Your task to perform on an android device: turn notification dots off Image 0: 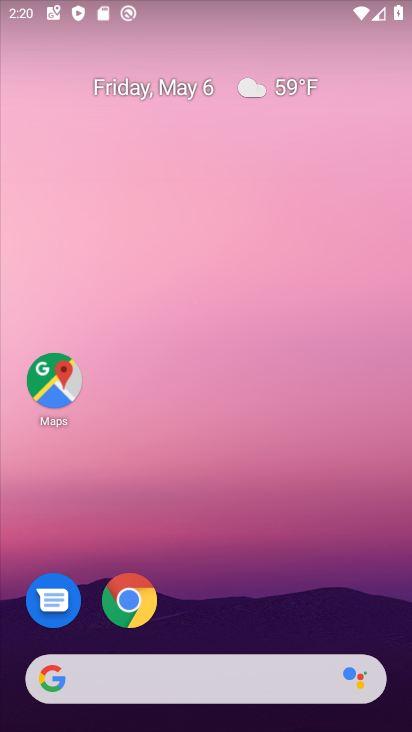
Step 0: drag from (239, 519) to (209, 28)
Your task to perform on an android device: turn notification dots off Image 1: 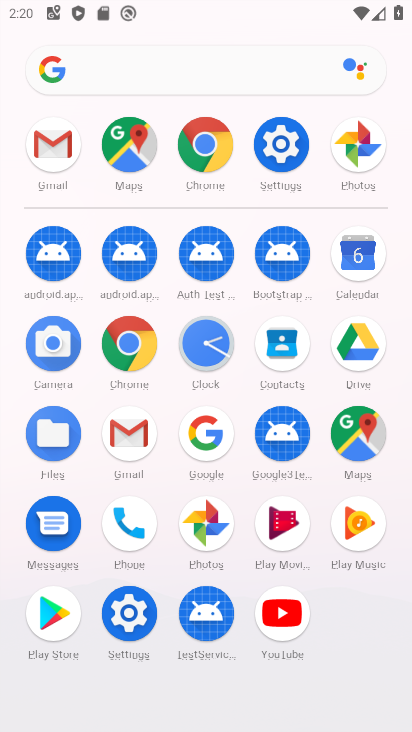
Step 1: click (282, 144)
Your task to perform on an android device: turn notification dots off Image 2: 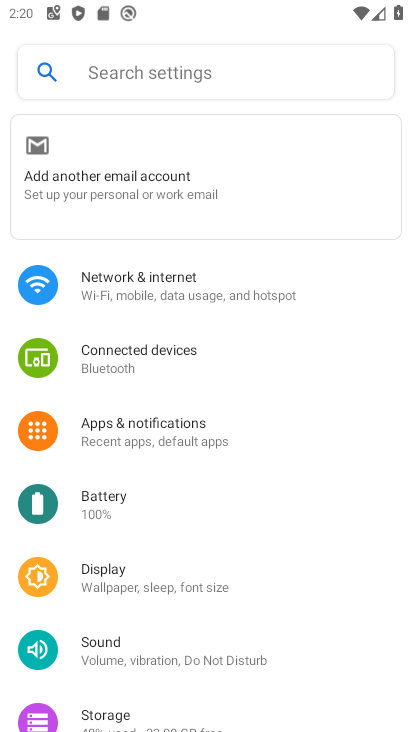
Step 2: click (158, 429)
Your task to perform on an android device: turn notification dots off Image 3: 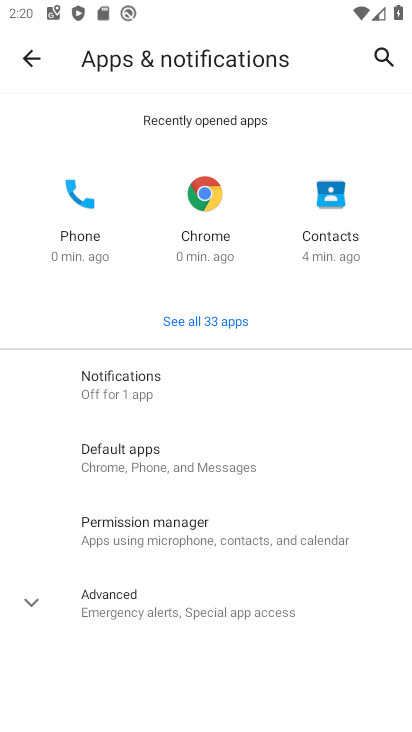
Step 3: click (148, 382)
Your task to perform on an android device: turn notification dots off Image 4: 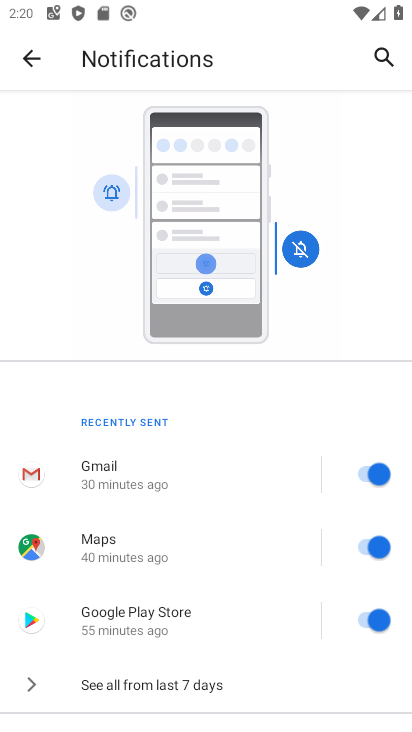
Step 4: drag from (235, 570) to (237, 125)
Your task to perform on an android device: turn notification dots off Image 5: 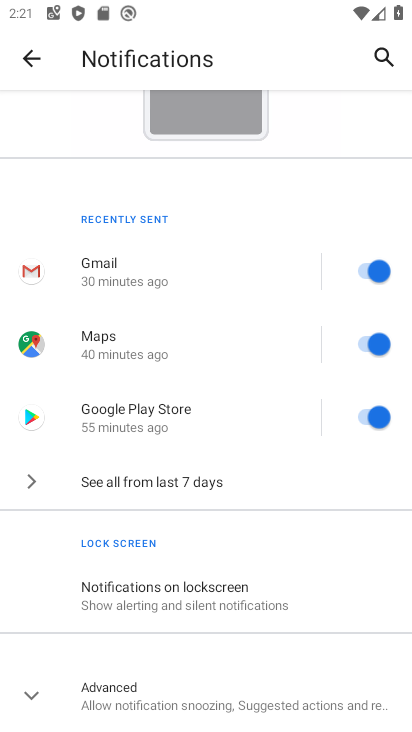
Step 5: click (127, 692)
Your task to perform on an android device: turn notification dots off Image 6: 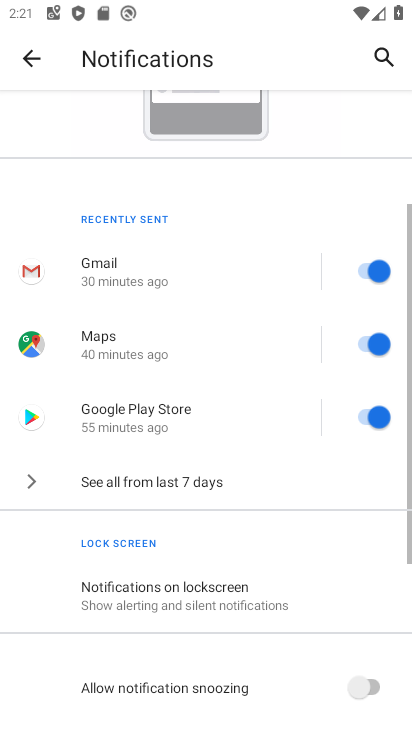
Step 6: task complete